Your task to perform on an android device: toggle pop-ups in chrome Image 0: 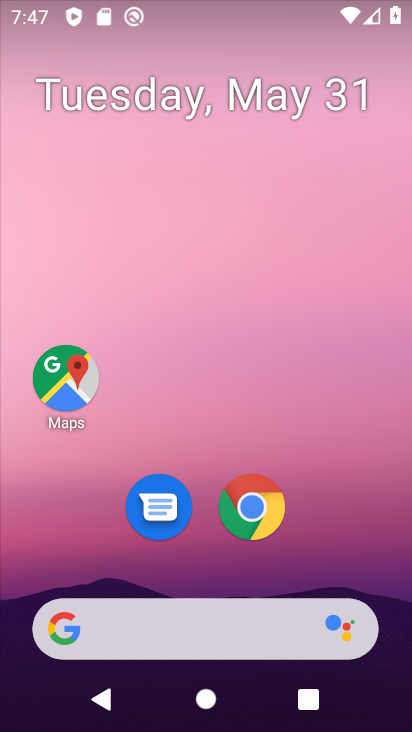
Step 0: drag from (330, 526) to (345, 181)
Your task to perform on an android device: toggle pop-ups in chrome Image 1: 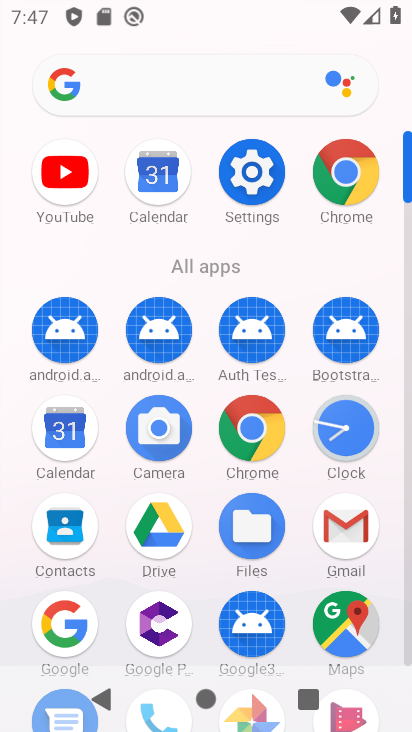
Step 1: click (350, 175)
Your task to perform on an android device: toggle pop-ups in chrome Image 2: 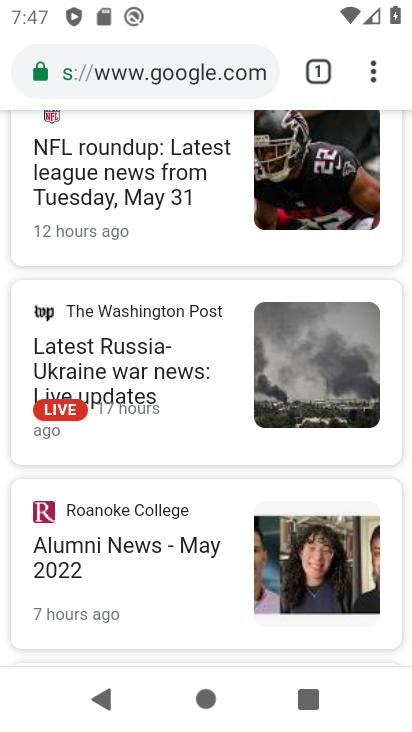
Step 2: click (370, 77)
Your task to perform on an android device: toggle pop-ups in chrome Image 3: 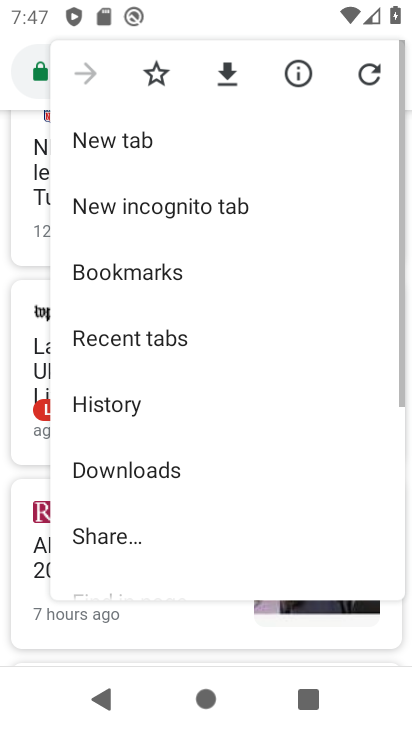
Step 3: drag from (202, 472) to (251, 138)
Your task to perform on an android device: toggle pop-ups in chrome Image 4: 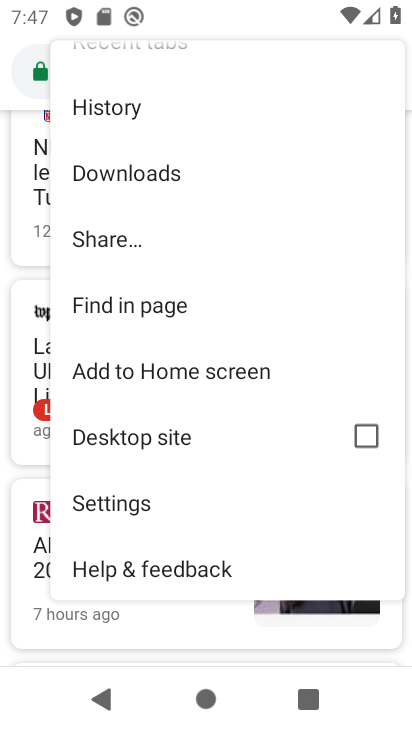
Step 4: click (130, 507)
Your task to perform on an android device: toggle pop-ups in chrome Image 5: 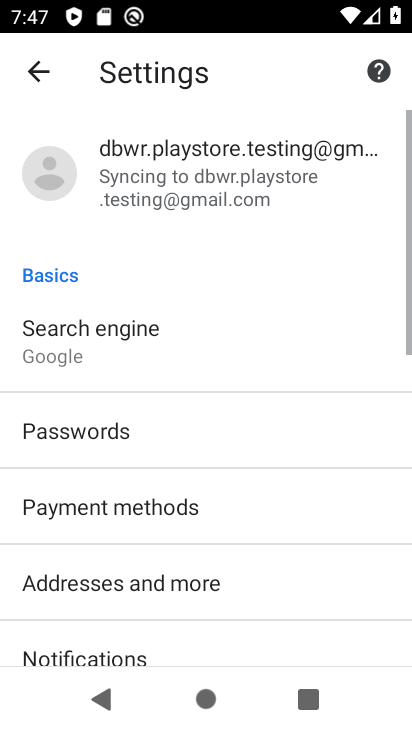
Step 5: drag from (276, 598) to (275, 234)
Your task to perform on an android device: toggle pop-ups in chrome Image 6: 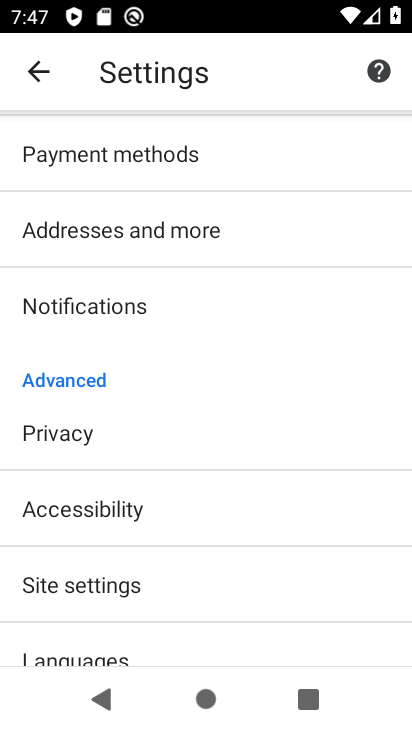
Step 6: drag from (185, 520) to (259, 306)
Your task to perform on an android device: toggle pop-ups in chrome Image 7: 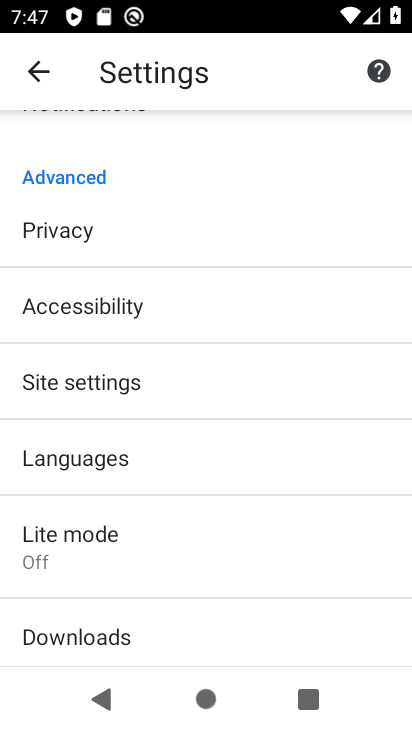
Step 7: click (86, 375)
Your task to perform on an android device: toggle pop-ups in chrome Image 8: 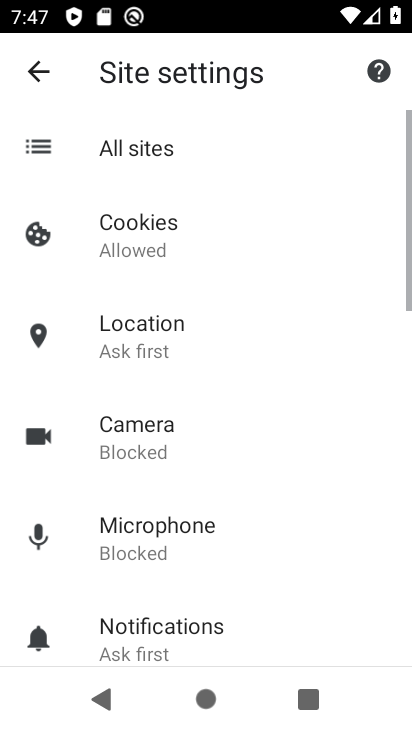
Step 8: drag from (312, 528) to (256, 252)
Your task to perform on an android device: toggle pop-ups in chrome Image 9: 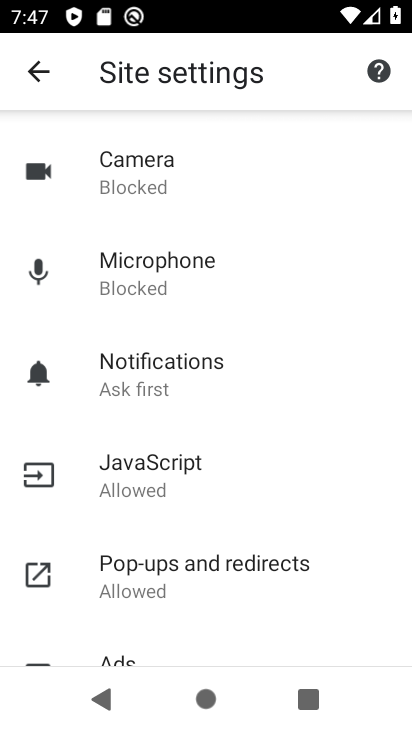
Step 9: click (177, 561)
Your task to perform on an android device: toggle pop-ups in chrome Image 10: 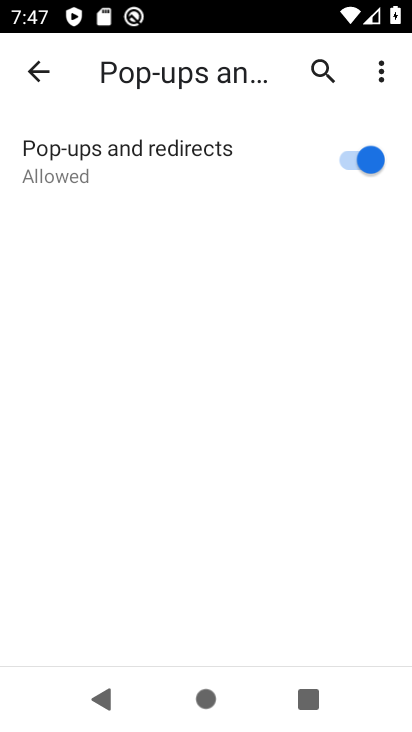
Step 10: click (379, 146)
Your task to perform on an android device: toggle pop-ups in chrome Image 11: 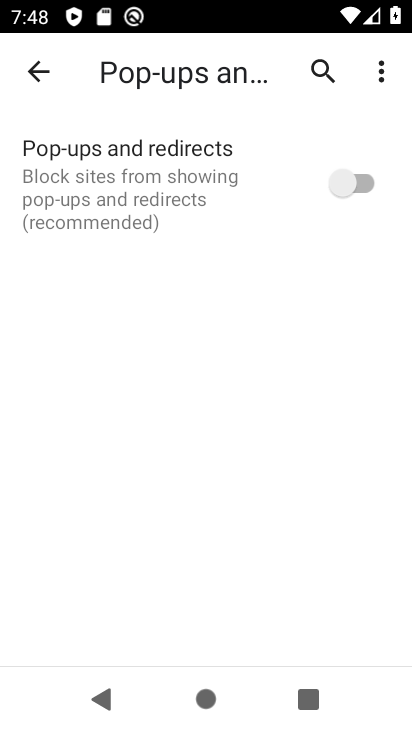
Step 11: task complete